Your task to perform on an android device: open sync settings in chrome Image 0: 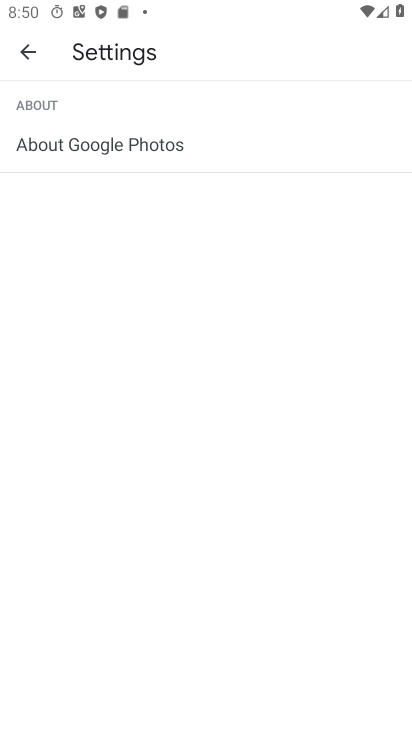
Step 0: press home button
Your task to perform on an android device: open sync settings in chrome Image 1: 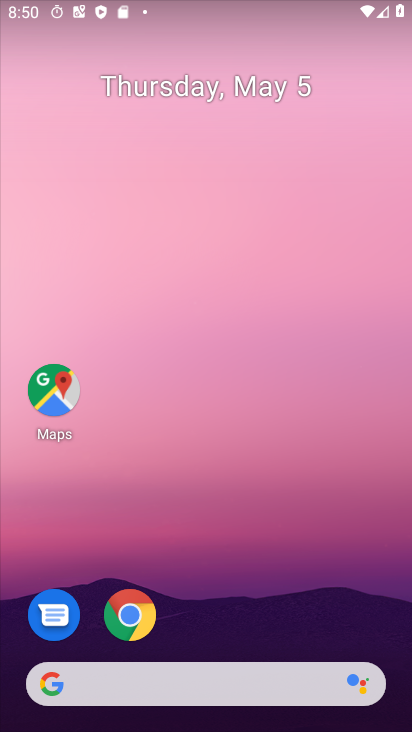
Step 1: drag from (206, 593) to (311, 177)
Your task to perform on an android device: open sync settings in chrome Image 2: 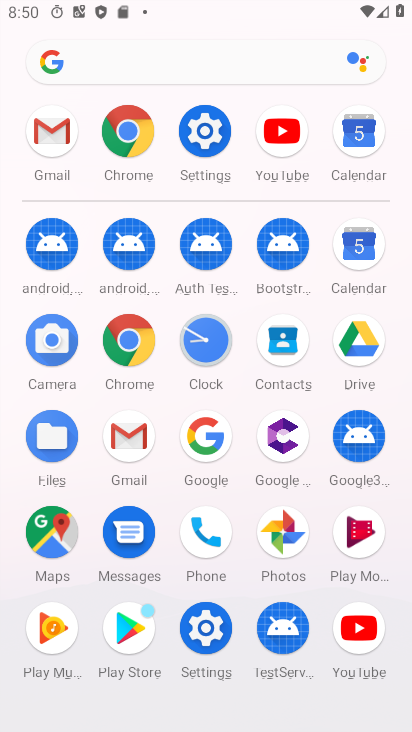
Step 2: click (150, 347)
Your task to perform on an android device: open sync settings in chrome Image 3: 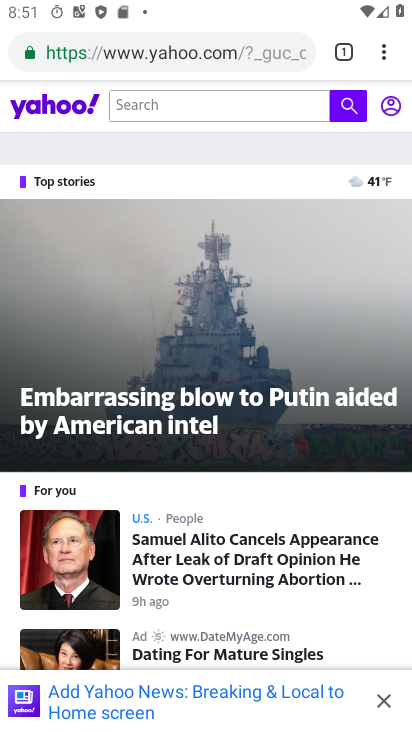
Step 3: click (384, 55)
Your task to perform on an android device: open sync settings in chrome Image 4: 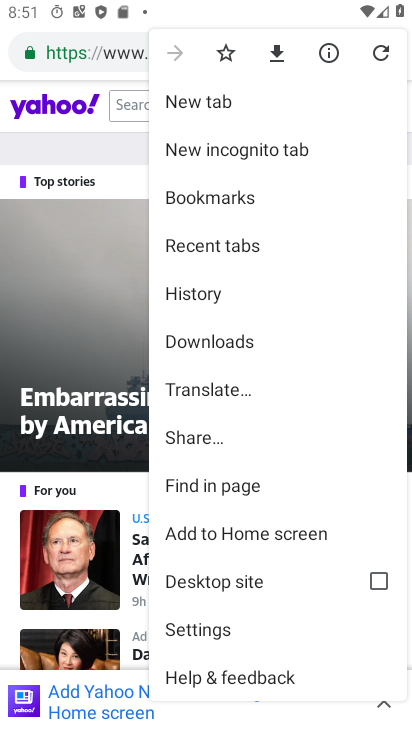
Step 4: click (206, 622)
Your task to perform on an android device: open sync settings in chrome Image 5: 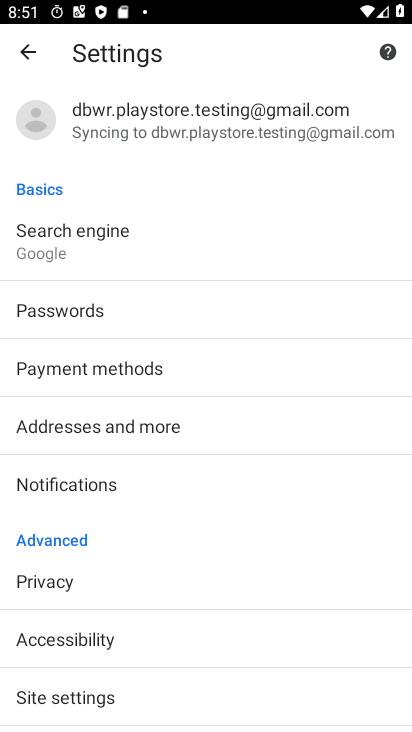
Step 5: drag from (153, 604) to (170, 514)
Your task to perform on an android device: open sync settings in chrome Image 6: 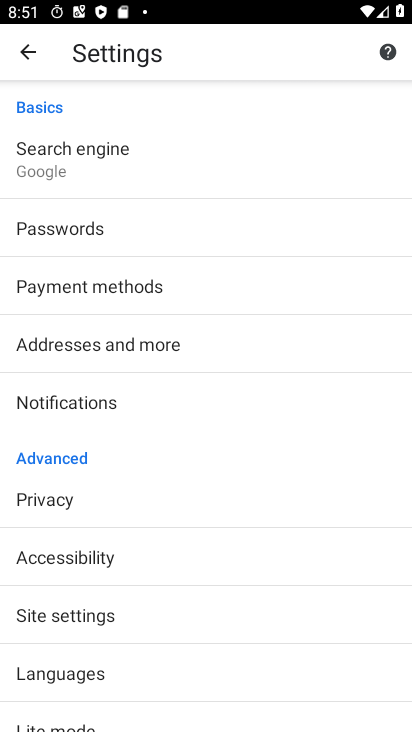
Step 6: drag from (148, 236) to (150, 565)
Your task to perform on an android device: open sync settings in chrome Image 7: 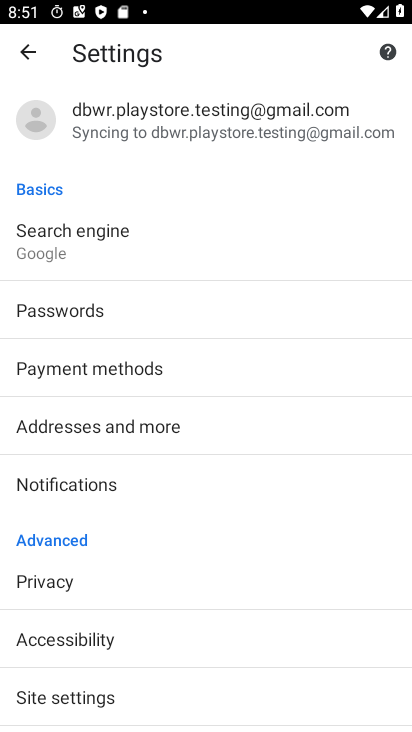
Step 7: click (234, 135)
Your task to perform on an android device: open sync settings in chrome Image 8: 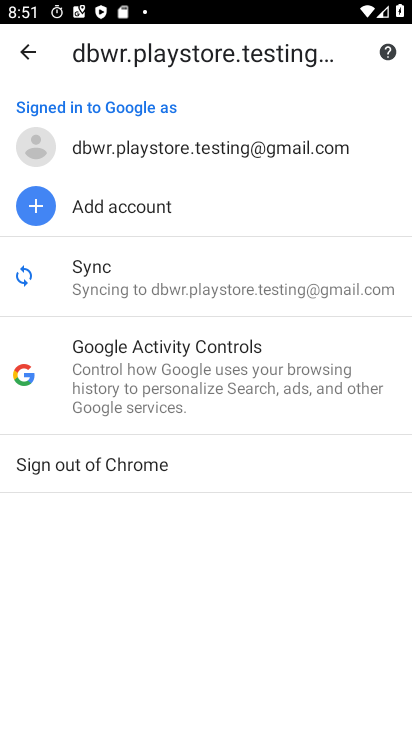
Step 8: click (169, 281)
Your task to perform on an android device: open sync settings in chrome Image 9: 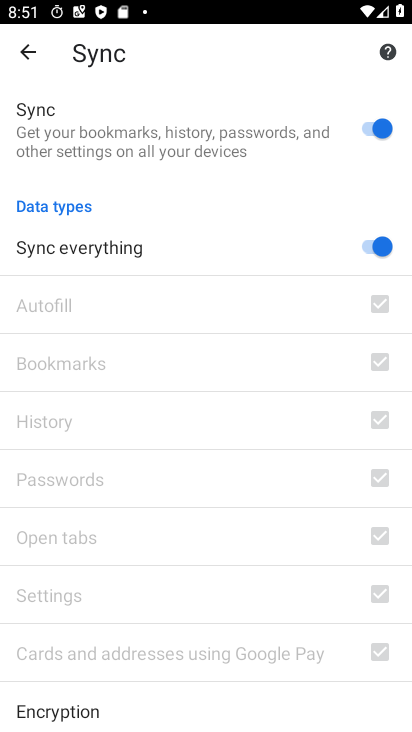
Step 9: task complete